Your task to perform on an android device: toggle priority inbox in the gmail app Image 0: 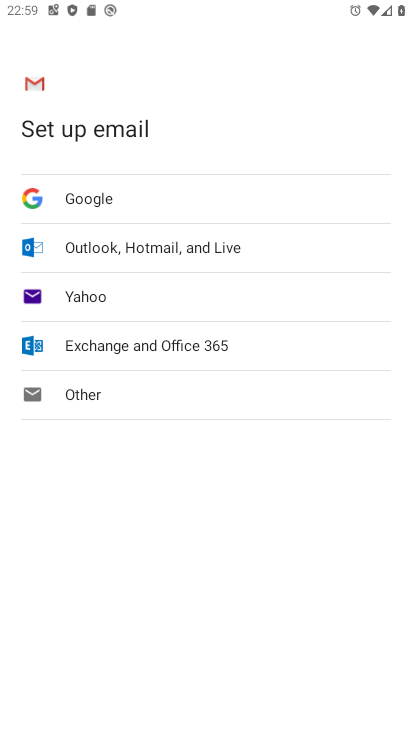
Step 0: press home button
Your task to perform on an android device: toggle priority inbox in the gmail app Image 1: 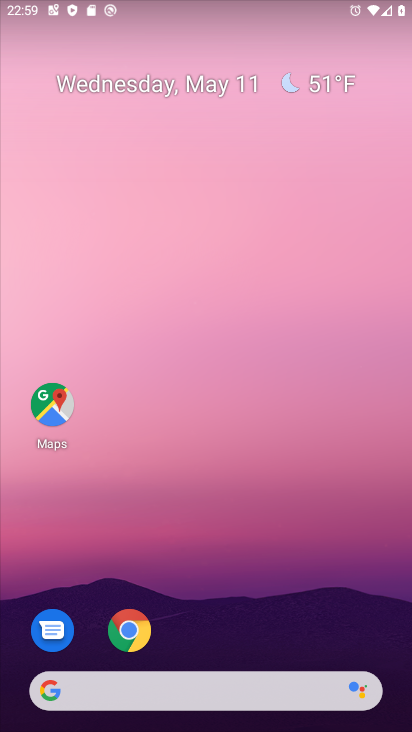
Step 1: drag from (216, 727) to (216, 201)
Your task to perform on an android device: toggle priority inbox in the gmail app Image 2: 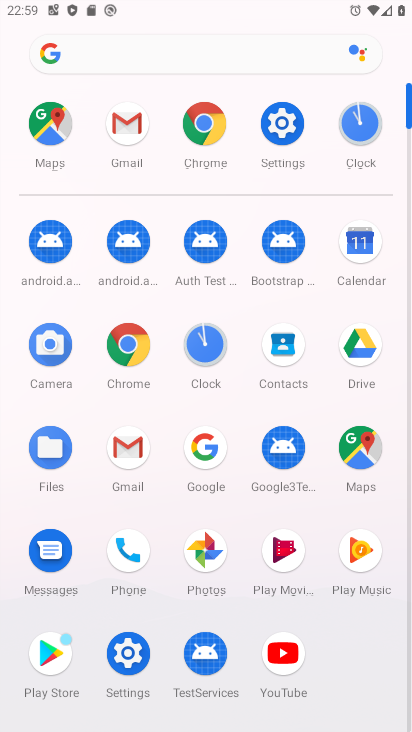
Step 2: click (133, 450)
Your task to perform on an android device: toggle priority inbox in the gmail app Image 3: 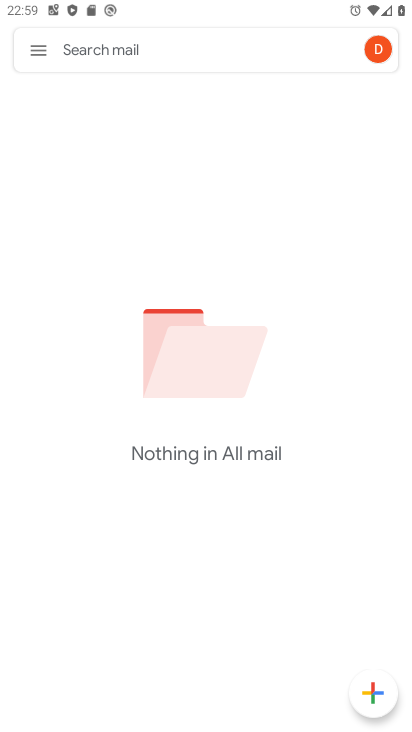
Step 3: click (37, 53)
Your task to perform on an android device: toggle priority inbox in the gmail app Image 4: 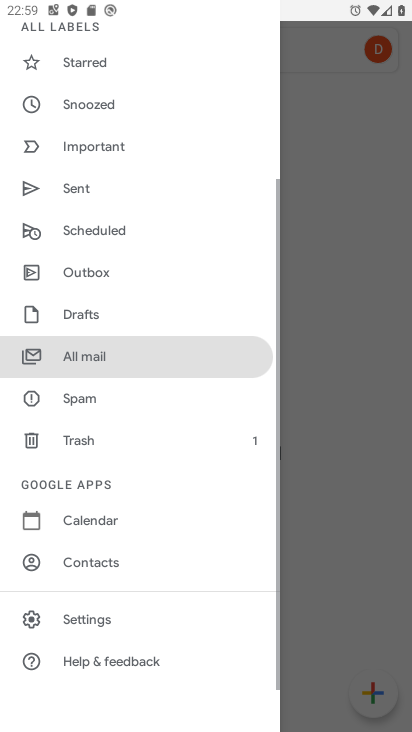
Step 4: click (68, 613)
Your task to perform on an android device: toggle priority inbox in the gmail app Image 5: 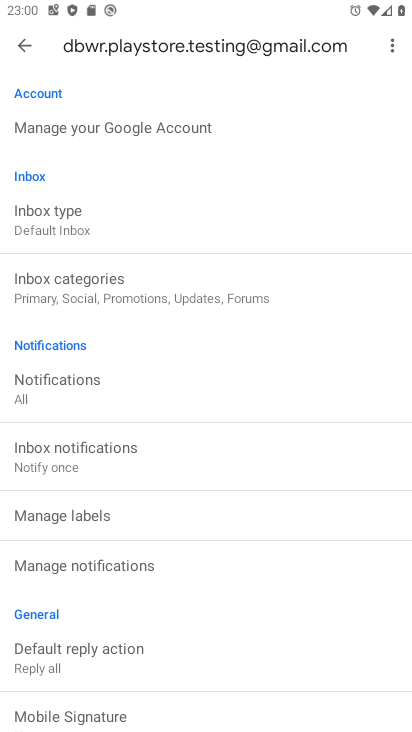
Step 5: click (51, 222)
Your task to perform on an android device: toggle priority inbox in the gmail app Image 6: 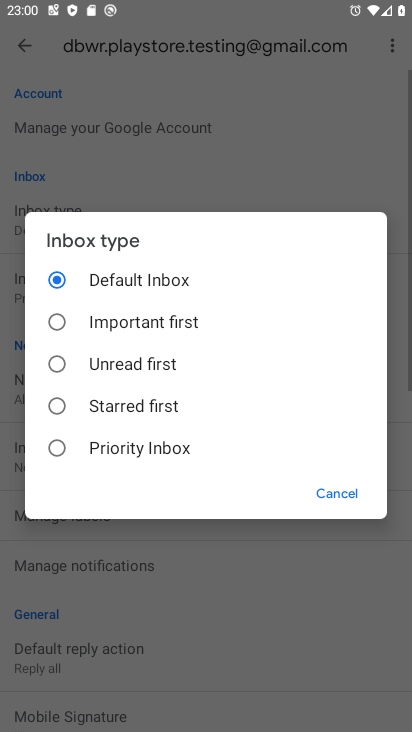
Step 6: click (59, 452)
Your task to perform on an android device: toggle priority inbox in the gmail app Image 7: 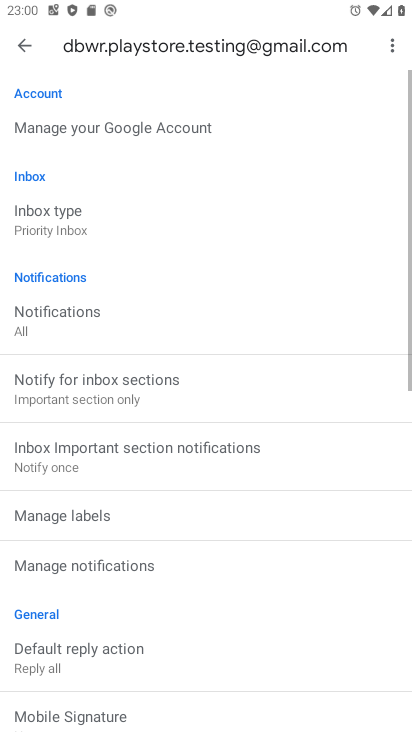
Step 7: task complete